Your task to perform on an android device: open app "Roku - Official Remote Control" (install if not already installed) Image 0: 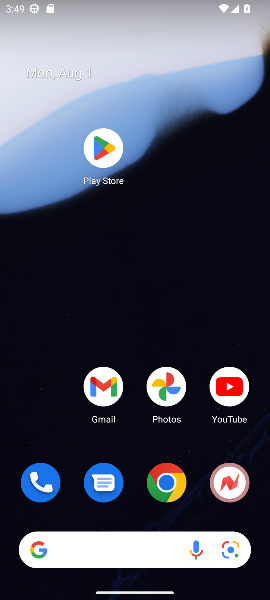
Step 0: press home button
Your task to perform on an android device: open app "Roku - Official Remote Control" (install if not already installed) Image 1: 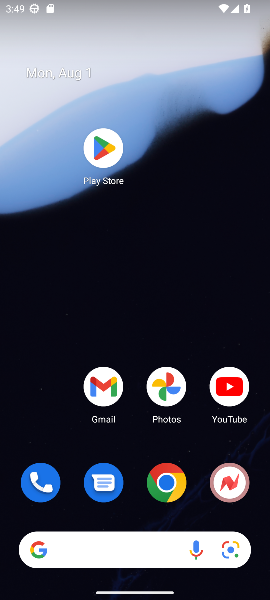
Step 1: click (104, 150)
Your task to perform on an android device: open app "Roku - Official Remote Control" (install if not already installed) Image 2: 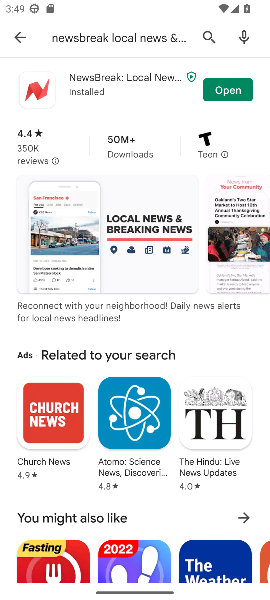
Step 2: click (204, 33)
Your task to perform on an android device: open app "Roku - Official Remote Control" (install if not already installed) Image 3: 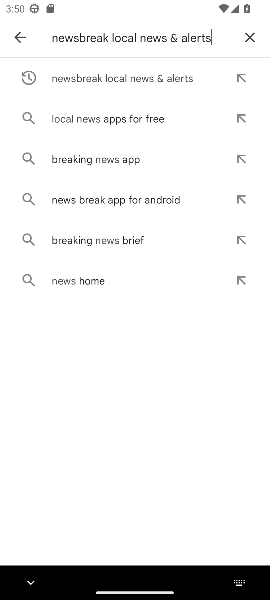
Step 3: click (248, 33)
Your task to perform on an android device: open app "Roku - Official Remote Control" (install if not already installed) Image 4: 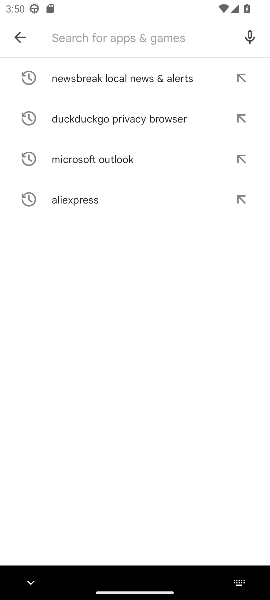
Step 4: type "Roku - Official Remote Control"
Your task to perform on an android device: open app "Roku - Official Remote Control" (install if not already installed) Image 5: 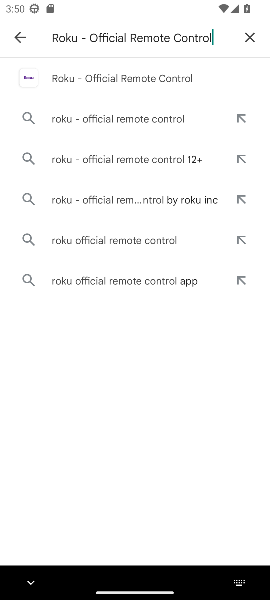
Step 5: click (145, 79)
Your task to perform on an android device: open app "Roku - Official Remote Control" (install if not already installed) Image 6: 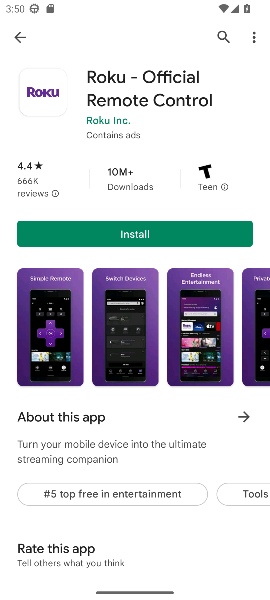
Step 6: click (134, 229)
Your task to perform on an android device: open app "Roku - Official Remote Control" (install if not already installed) Image 7: 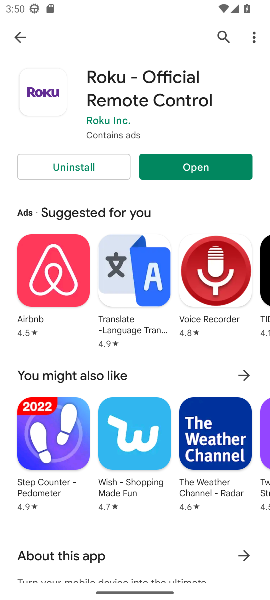
Step 7: click (193, 165)
Your task to perform on an android device: open app "Roku - Official Remote Control" (install if not already installed) Image 8: 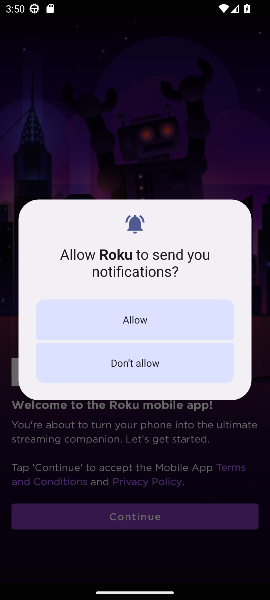
Step 8: click (153, 365)
Your task to perform on an android device: open app "Roku - Official Remote Control" (install if not already installed) Image 9: 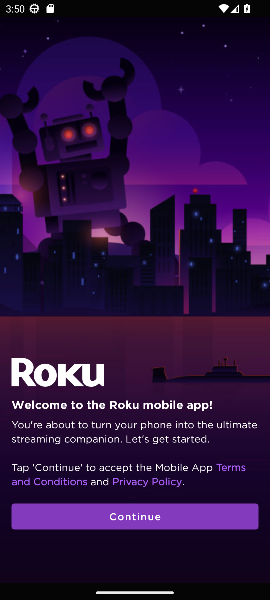
Step 9: task complete